Your task to perform on an android device: Search for Mexican restaurants on Maps Image 0: 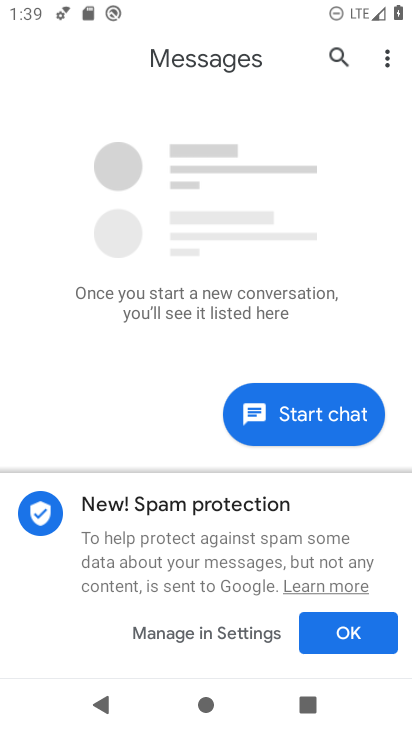
Step 0: press home button
Your task to perform on an android device: Search for Mexican restaurants on Maps Image 1: 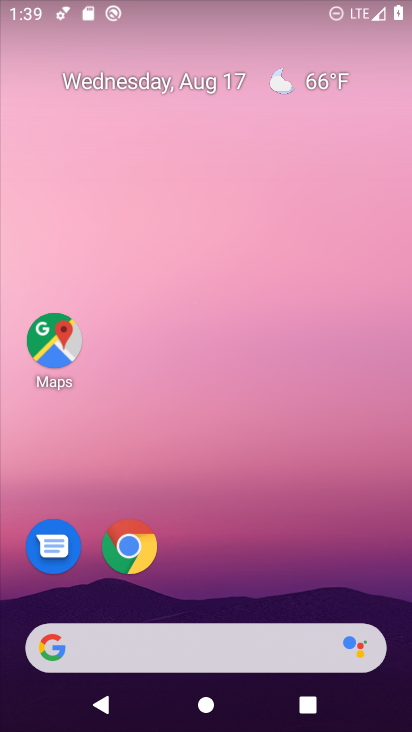
Step 1: click (54, 340)
Your task to perform on an android device: Search for Mexican restaurants on Maps Image 2: 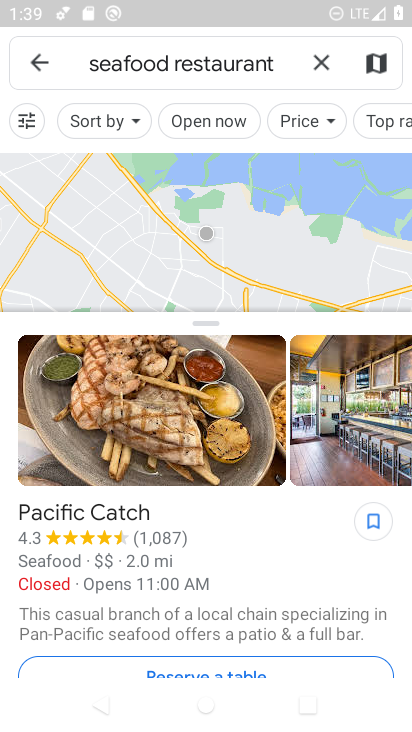
Step 2: click (323, 61)
Your task to perform on an android device: Search for Mexican restaurants on Maps Image 3: 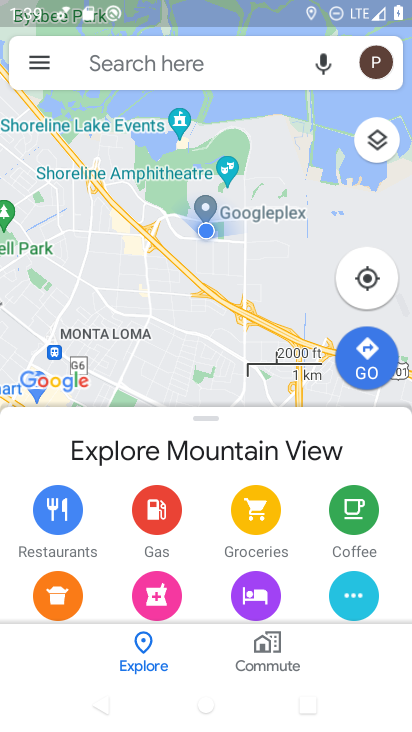
Step 3: click (207, 65)
Your task to perform on an android device: Search for Mexican restaurants on Maps Image 4: 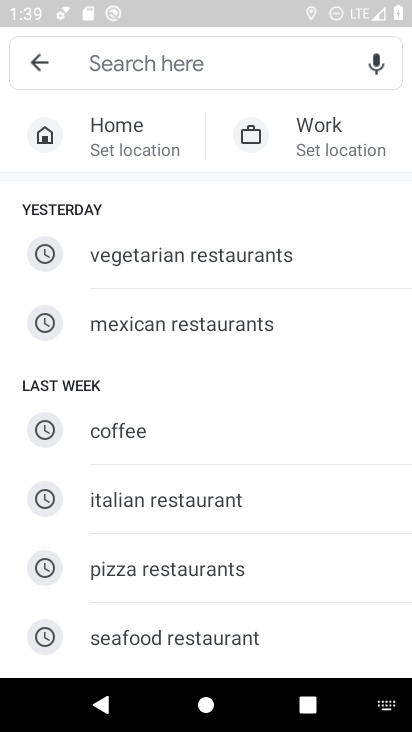
Step 4: click (188, 321)
Your task to perform on an android device: Search for Mexican restaurants on Maps Image 5: 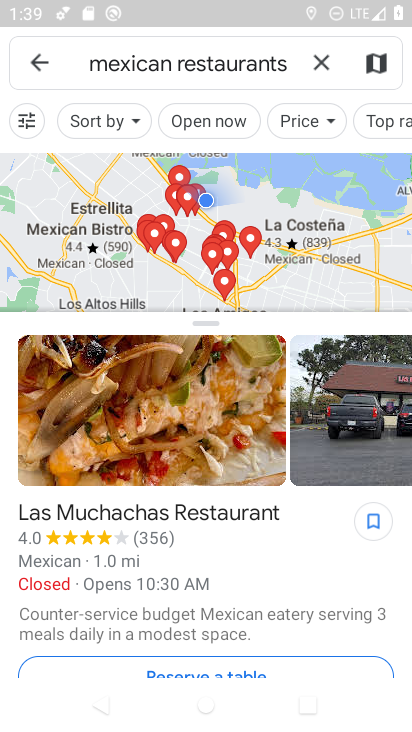
Step 5: task complete